Your task to perform on an android device: turn off wifi Image 0: 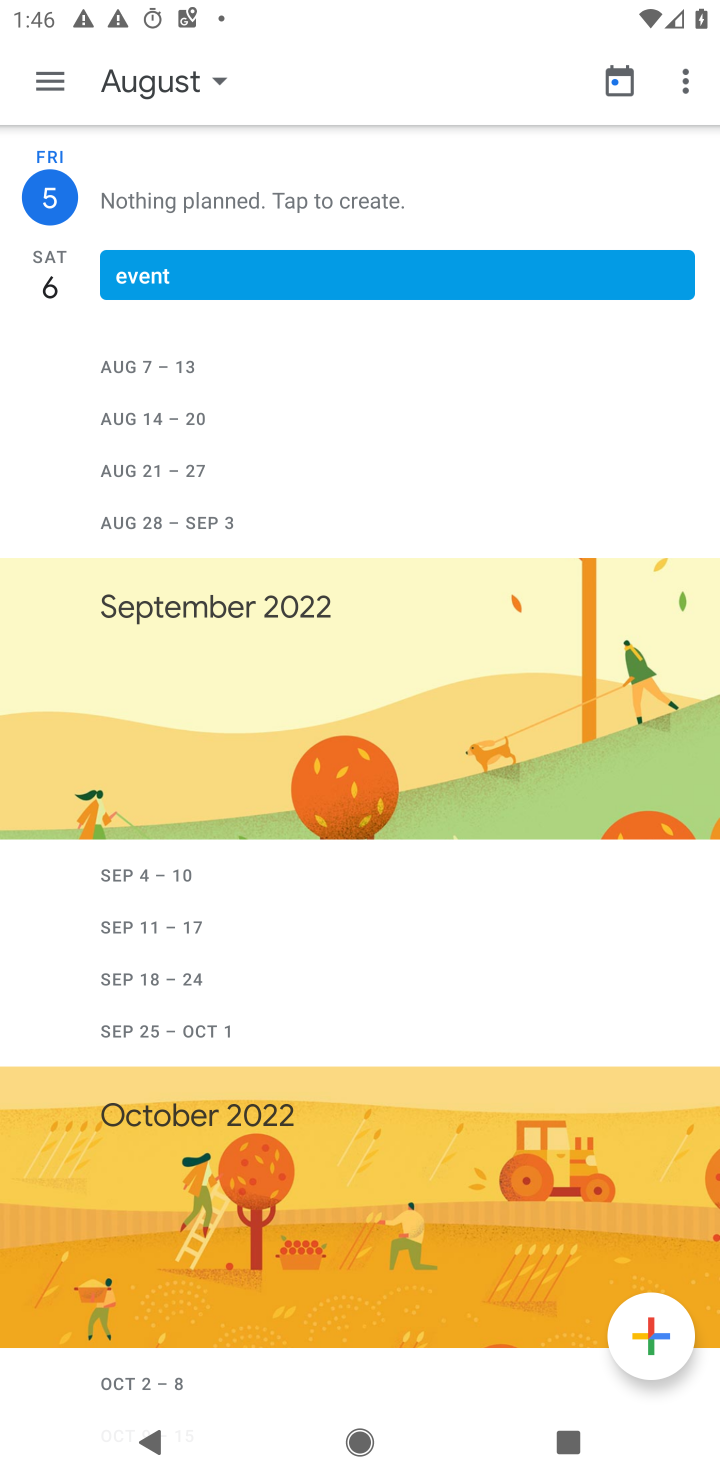
Step 0: press home button
Your task to perform on an android device: turn off wifi Image 1: 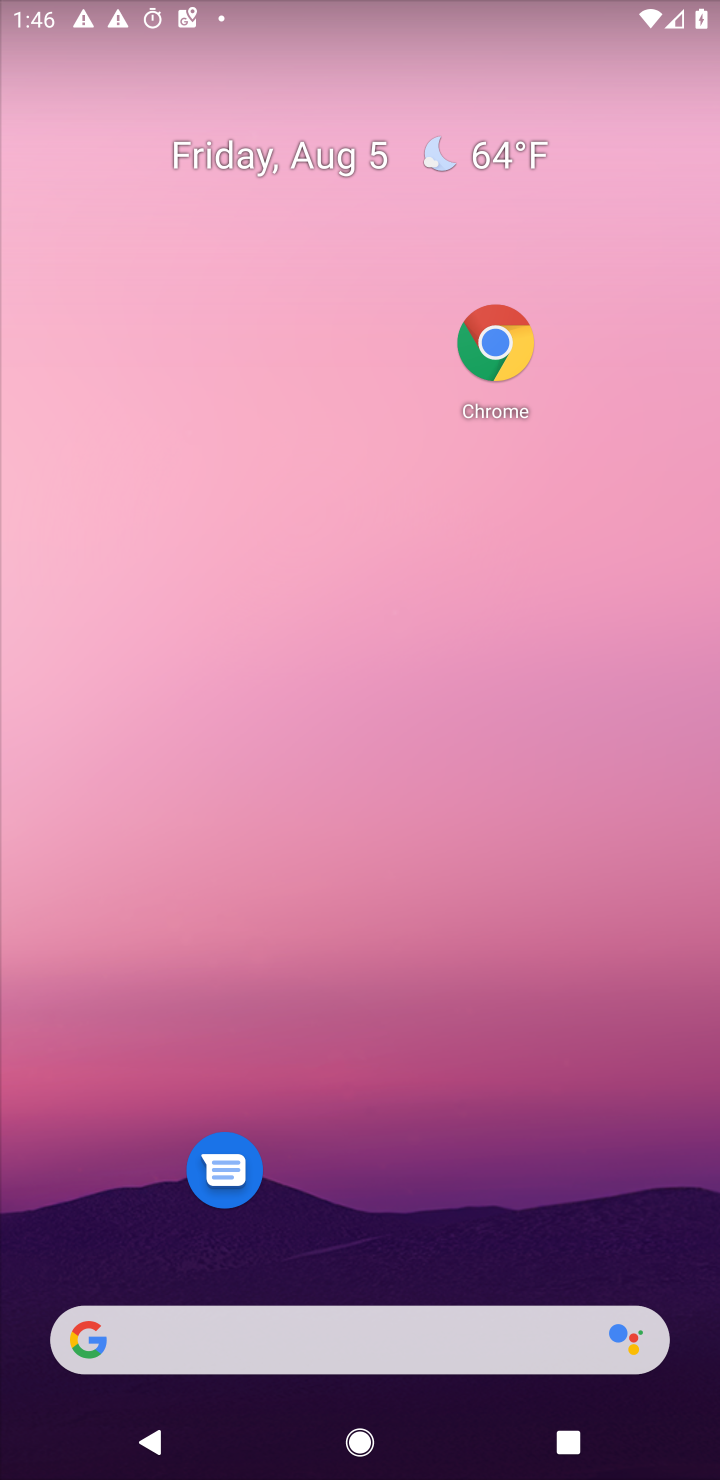
Step 1: drag from (387, 1012) to (271, 42)
Your task to perform on an android device: turn off wifi Image 2: 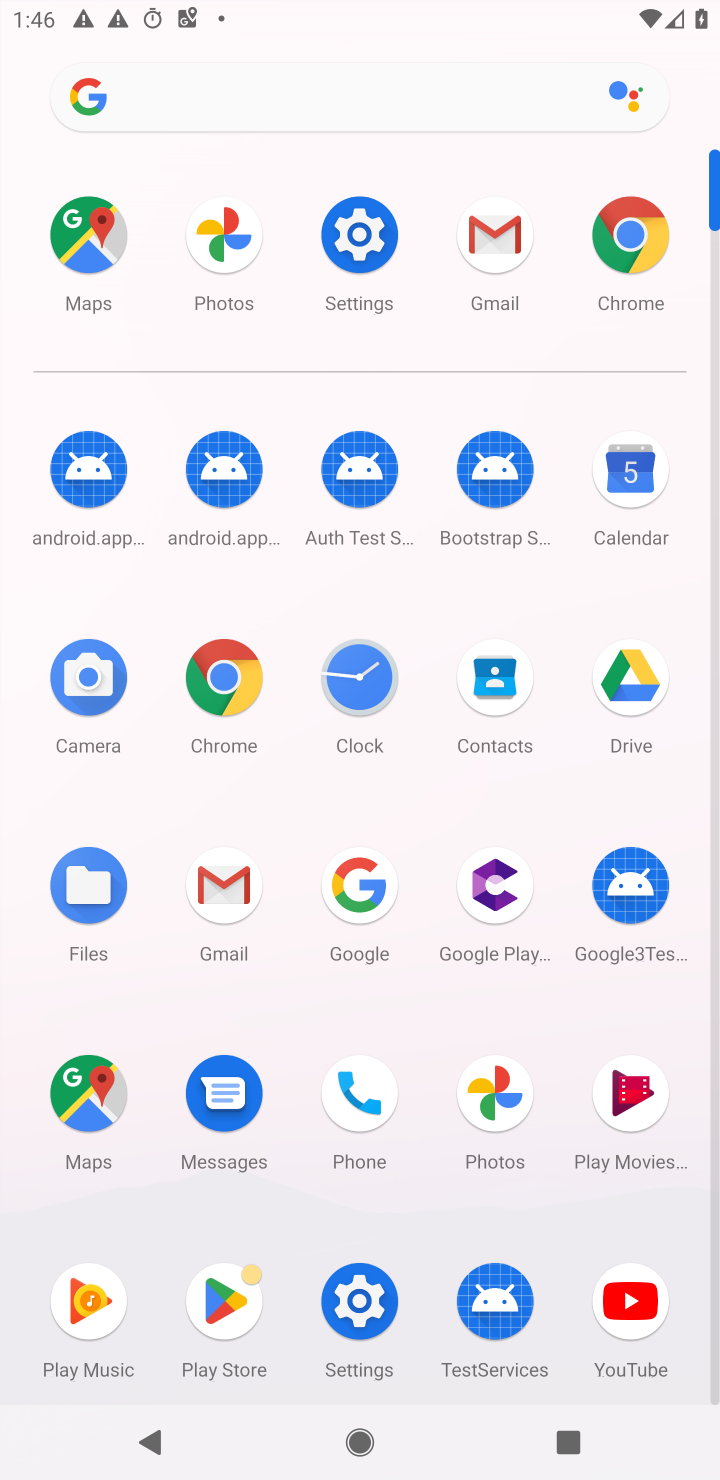
Step 2: click (364, 257)
Your task to perform on an android device: turn off wifi Image 3: 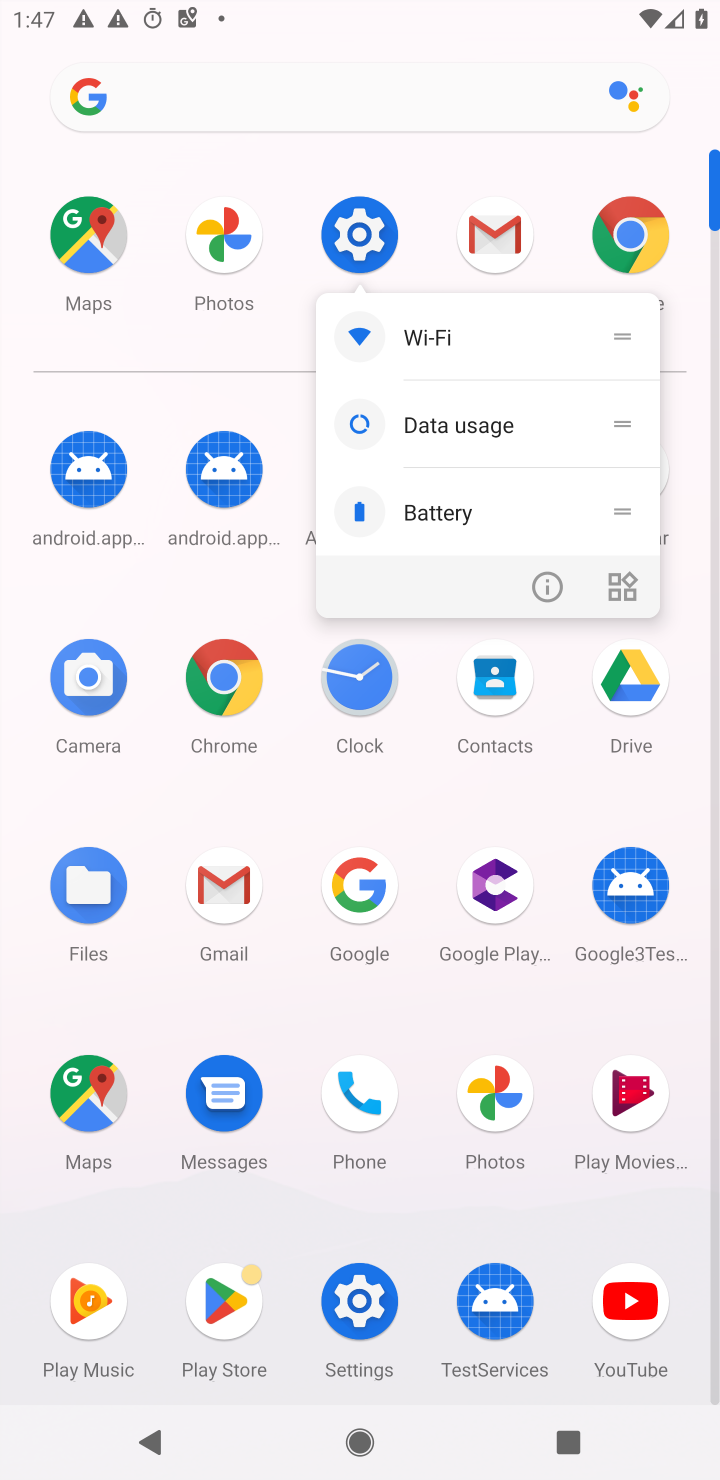
Step 3: click (354, 242)
Your task to perform on an android device: turn off wifi Image 4: 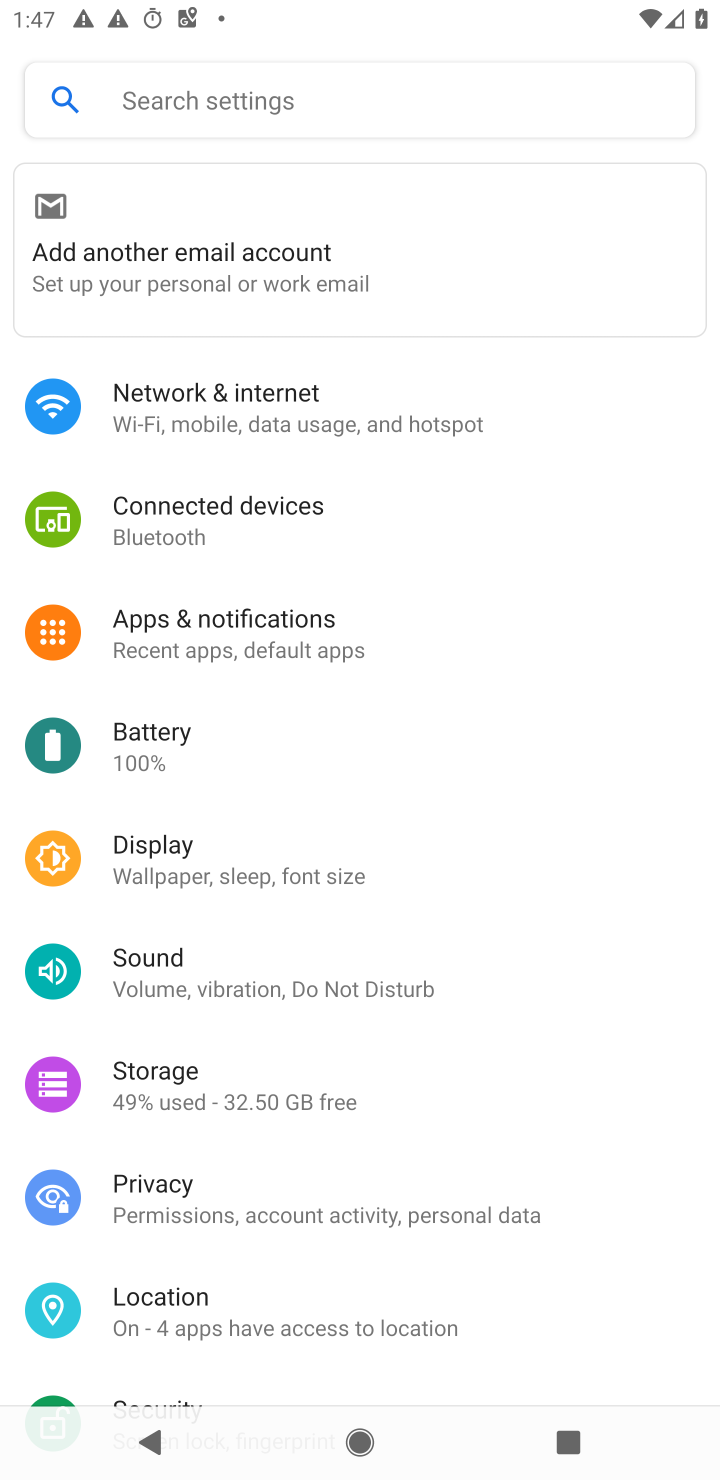
Step 4: click (330, 375)
Your task to perform on an android device: turn off wifi Image 5: 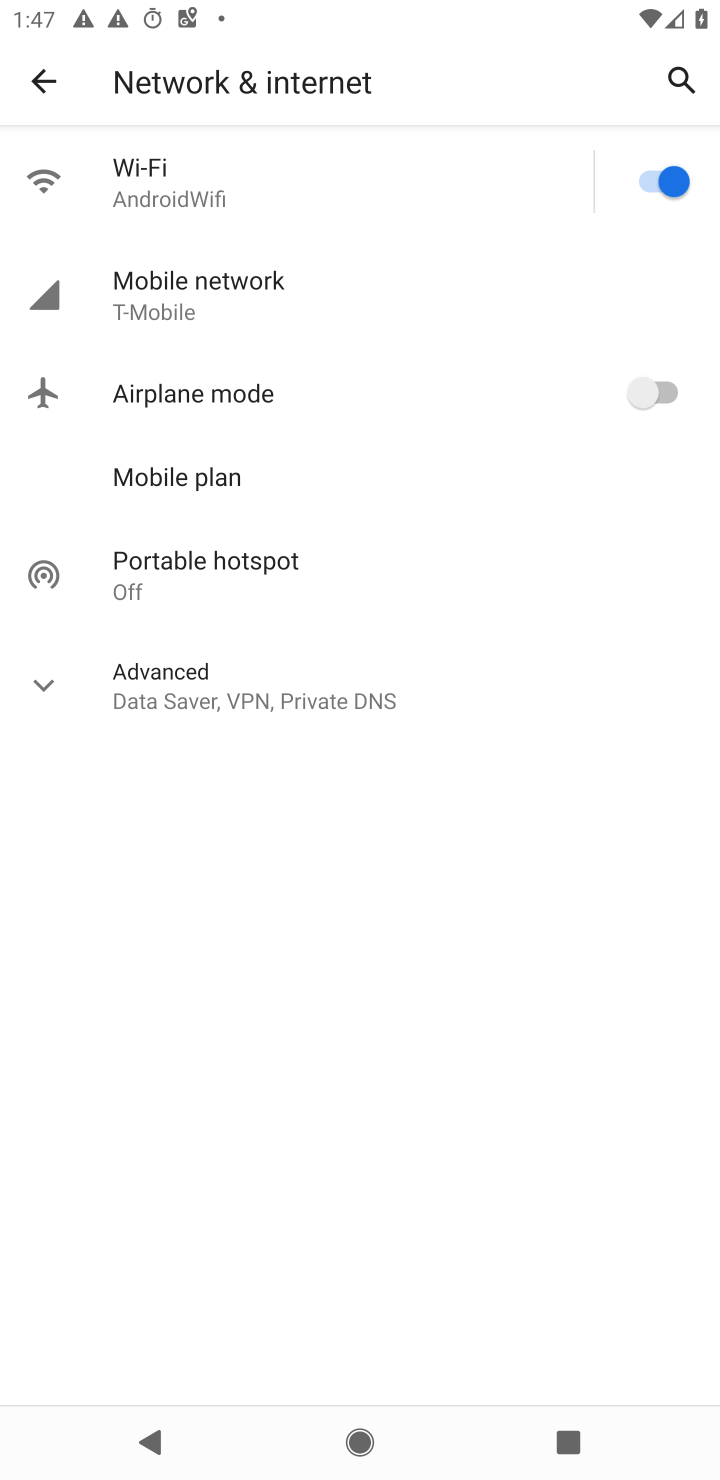
Step 5: click (686, 186)
Your task to perform on an android device: turn off wifi Image 6: 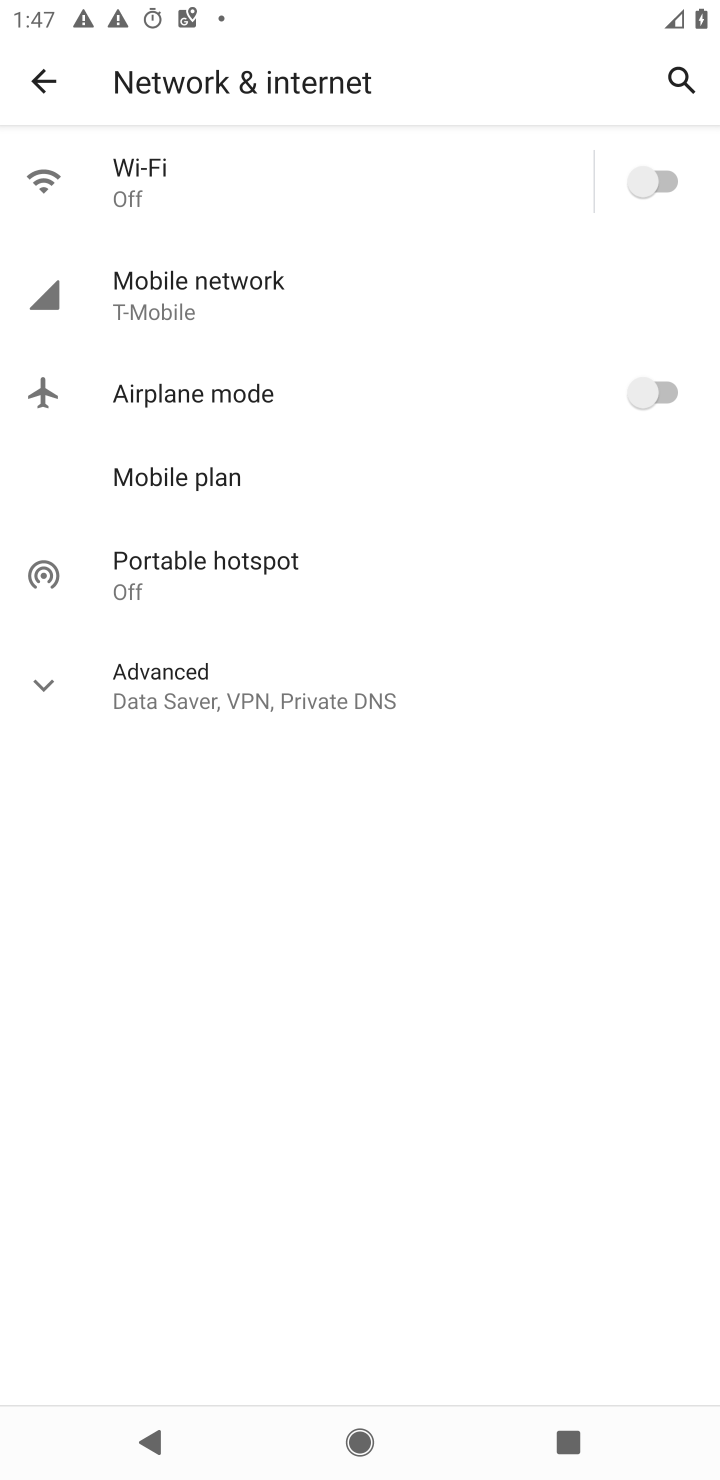
Step 6: task complete